Your task to perform on an android device: How much does a 3 bedroom apartment rent for in San Francisco? Image 0: 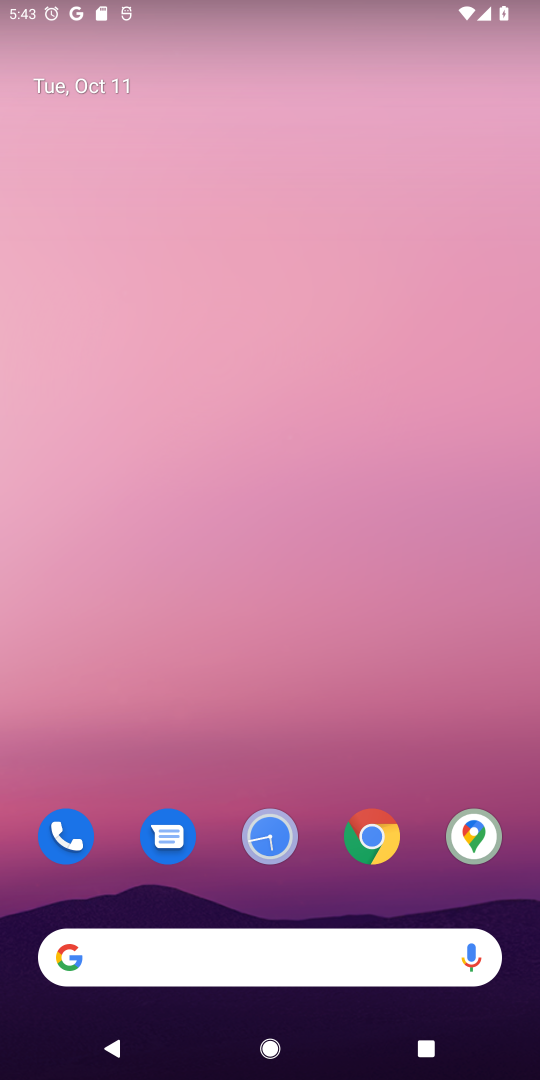
Step 0: click (299, 941)
Your task to perform on an android device: How much does a 3 bedroom apartment rent for in San Francisco? Image 1: 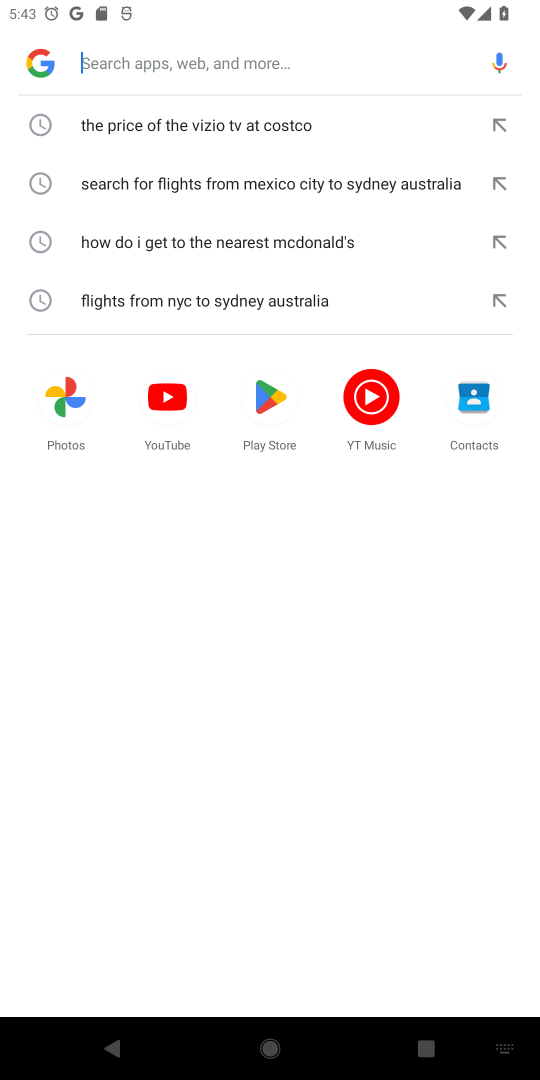
Step 1: type "How much does a 3 bedroom apartment rent for in San Francisco?"
Your task to perform on an android device: How much does a 3 bedroom apartment rent for in San Francisco? Image 2: 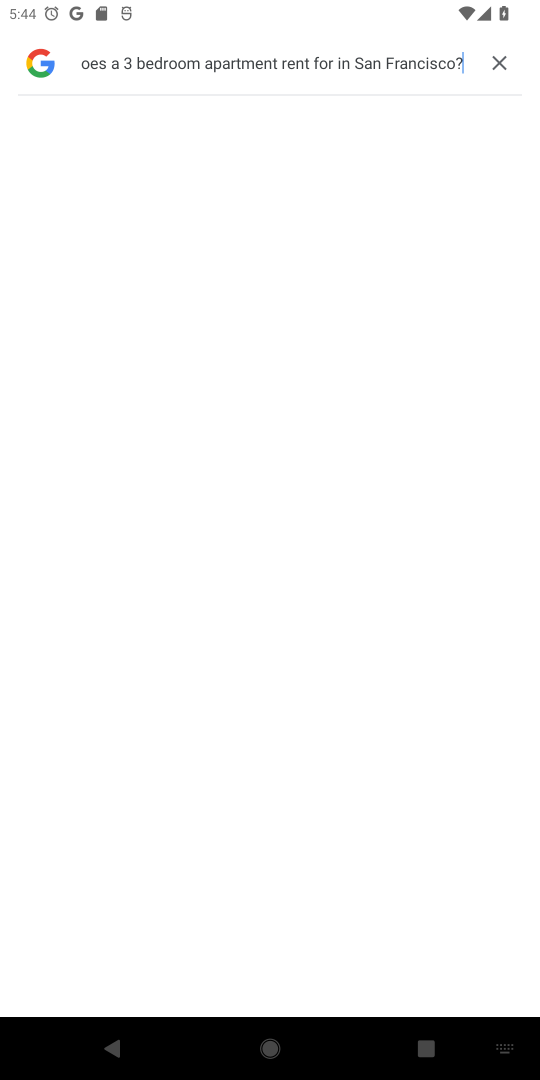
Step 2: task complete